Your task to perform on an android device: turn off smart reply in the gmail app Image 0: 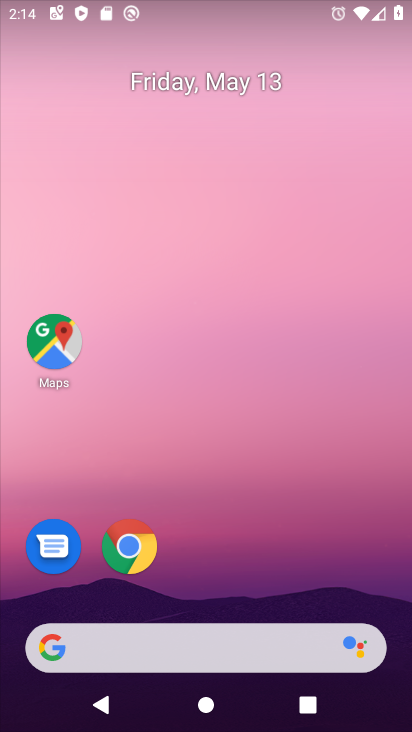
Step 0: drag from (291, 573) to (309, 45)
Your task to perform on an android device: turn off smart reply in the gmail app Image 1: 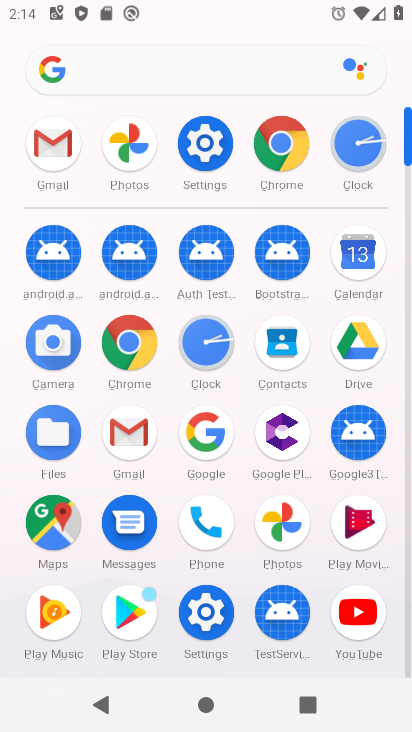
Step 1: click (65, 159)
Your task to perform on an android device: turn off smart reply in the gmail app Image 2: 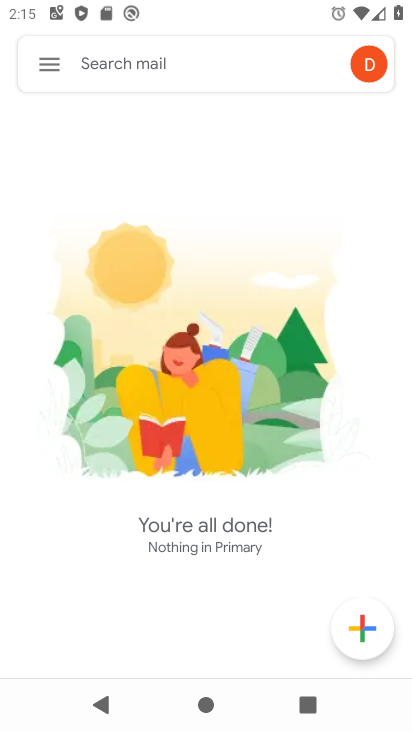
Step 2: click (42, 61)
Your task to perform on an android device: turn off smart reply in the gmail app Image 3: 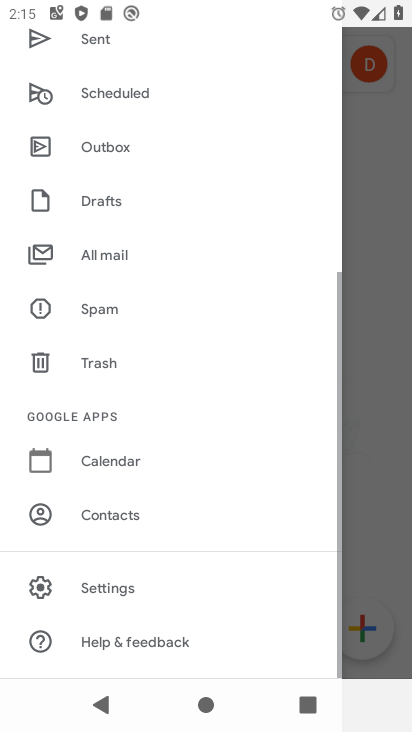
Step 3: drag from (178, 640) to (313, 310)
Your task to perform on an android device: turn off smart reply in the gmail app Image 4: 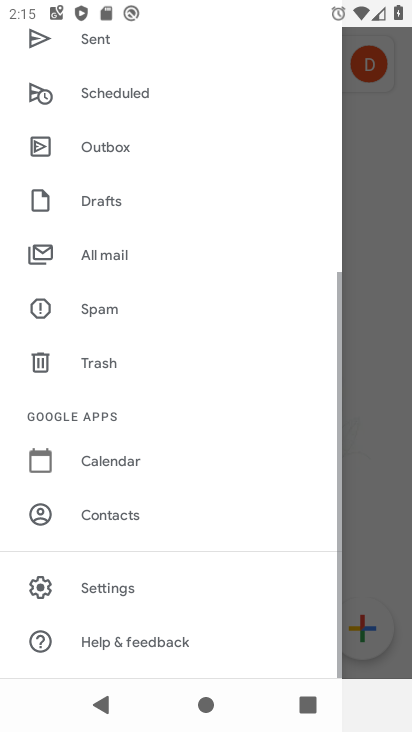
Step 4: click (119, 578)
Your task to perform on an android device: turn off smart reply in the gmail app Image 5: 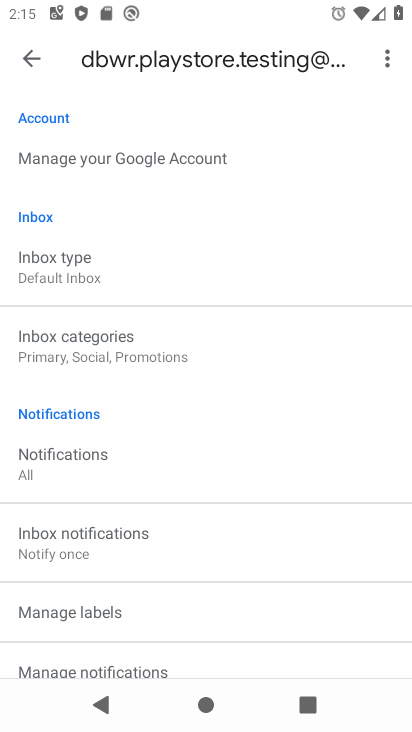
Step 5: drag from (212, 573) to (338, 200)
Your task to perform on an android device: turn off smart reply in the gmail app Image 6: 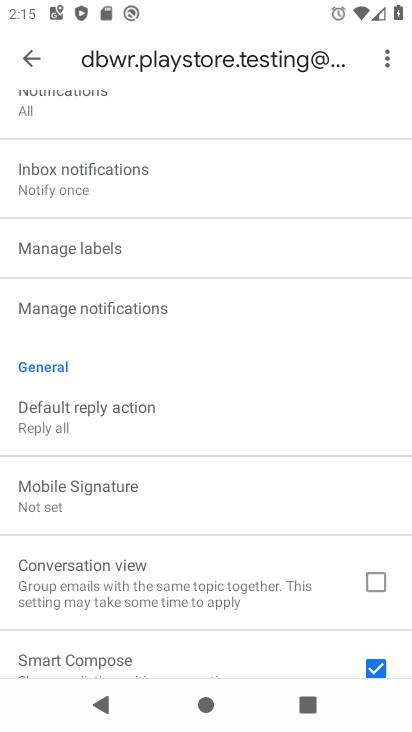
Step 6: drag from (185, 548) to (295, 242)
Your task to perform on an android device: turn off smart reply in the gmail app Image 7: 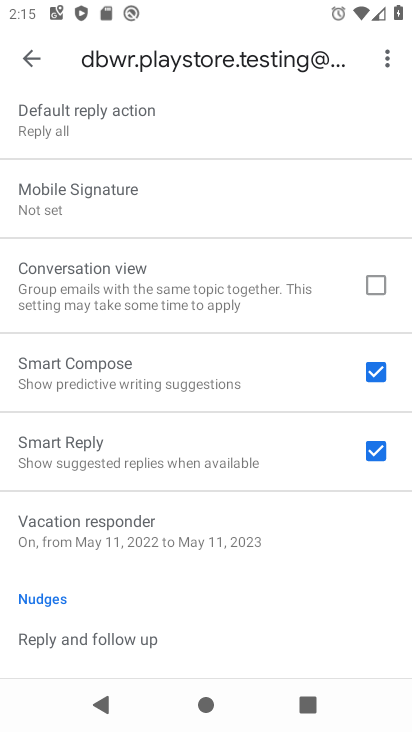
Step 7: click (374, 456)
Your task to perform on an android device: turn off smart reply in the gmail app Image 8: 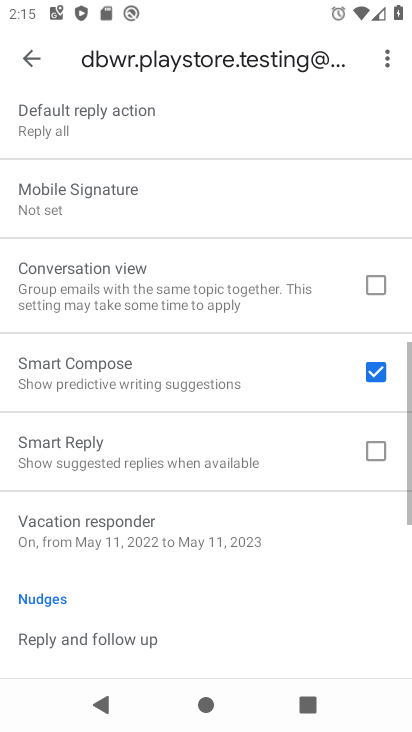
Step 8: task complete